Your task to perform on an android device: Go to privacy settings Image 0: 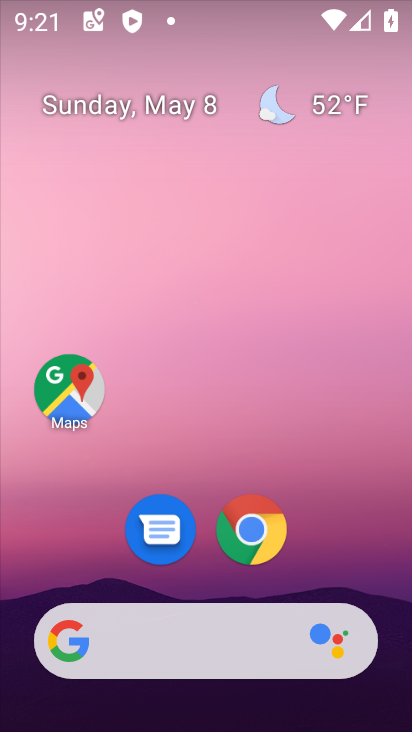
Step 0: press home button
Your task to perform on an android device: Go to privacy settings Image 1: 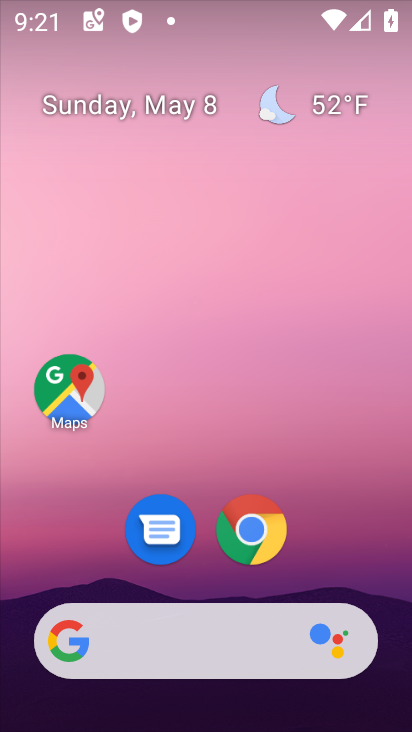
Step 1: drag from (362, 543) to (381, 126)
Your task to perform on an android device: Go to privacy settings Image 2: 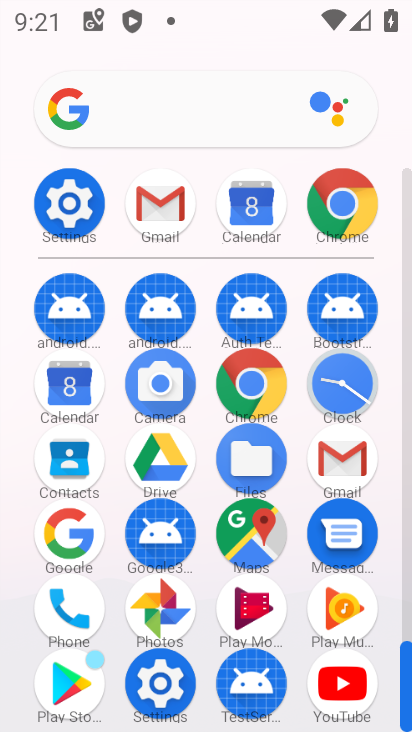
Step 2: click (168, 692)
Your task to perform on an android device: Go to privacy settings Image 3: 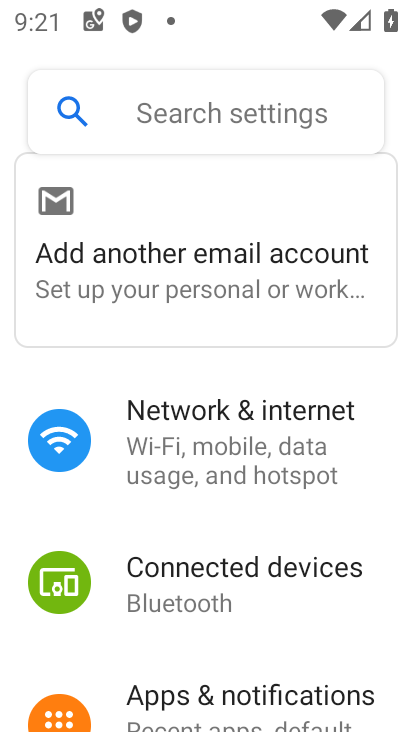
Step 3: drag from (192, 646) to (264, 265)
Your task to perform on an android device: Go to privacy settings Image 4: 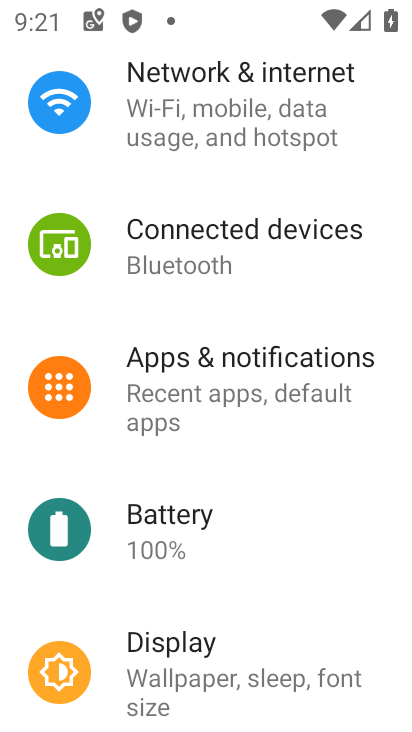
Step 4: drag from (272, 615) to (343, 285)
Your task to perform on an android device: Go to privacy settings Image 5: 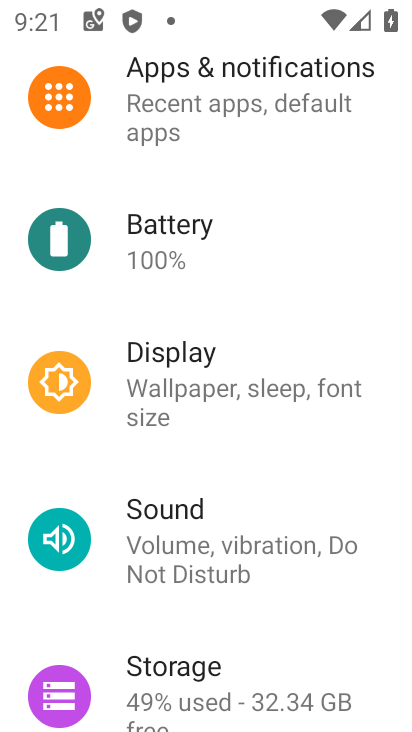
Step 5: drag from (261, 676) to (330, 290)
Your task to perform on an android device: Go to privacy settings Image 6: 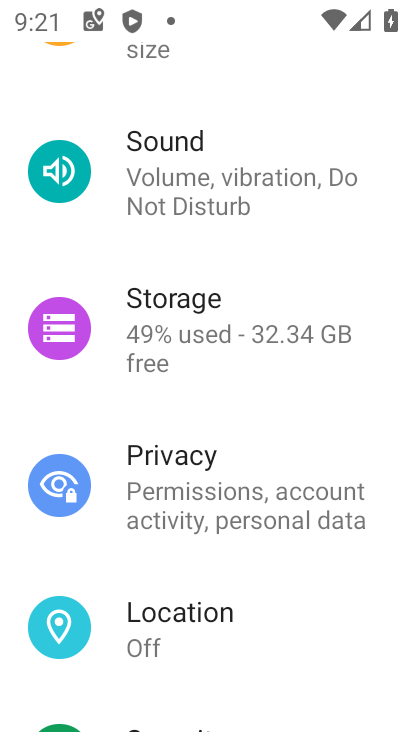
Step 6: click (220, 467)
Your task to perform on an android device: Go to privacy settings Image 7: 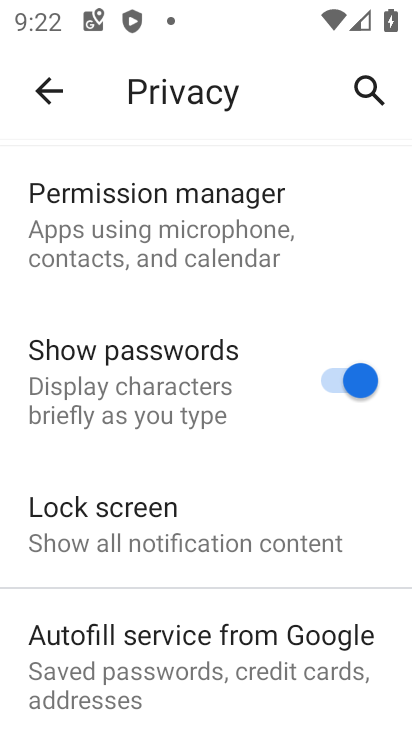
Step 7: task complete